Your task to perform on an android device: change your default location settings in chrome Image 0: 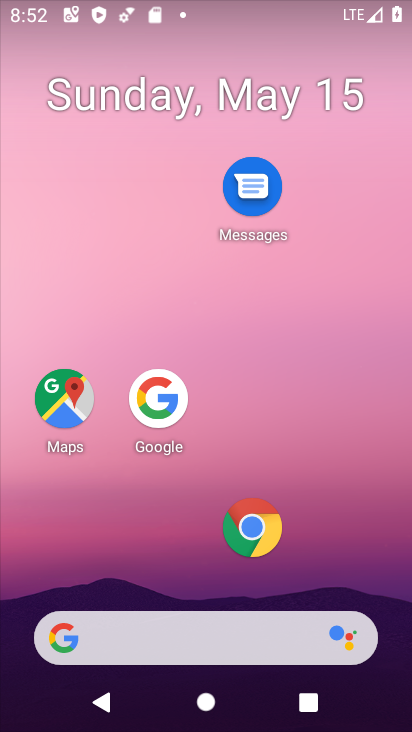
Step 0: click (245, 530)
Your task to perform on an android device: change your default location settings in chrome Image 1: 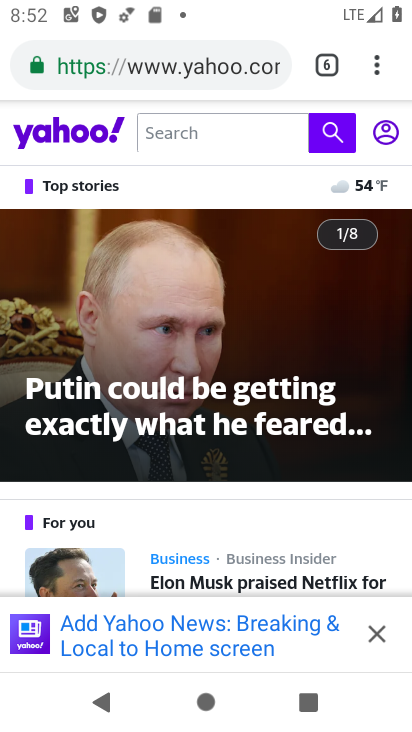
Step 1: drag from (375, 70) to (186, 584)
Your task to perform on an android device: change your default location settings in chrome Image 2: 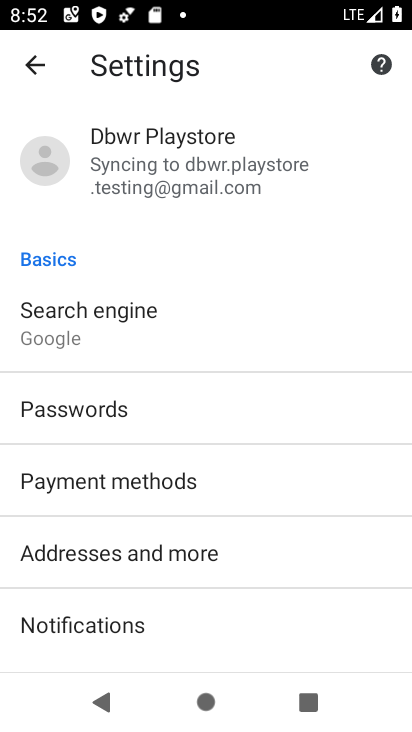
Step 2: drag from (161, 644) to (285, 223)
Your task to perform on an android device: change your default location settings in chrome Image 3: 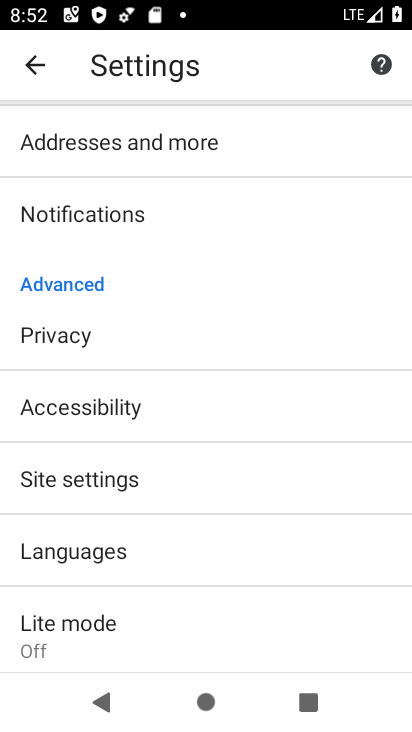
Step 3: click (139, 486)
Your task to perform on an android device: change your default location settings in chrome Image 4: 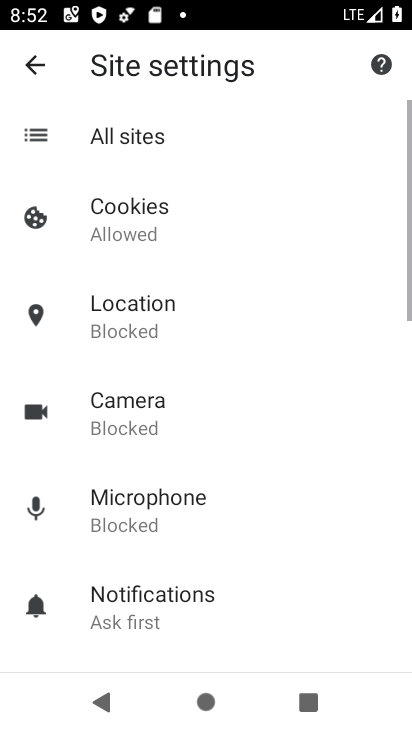
Step 4: click (125, 319)
Your task to perform on an android device: change your default location settings in chrome Image 5: 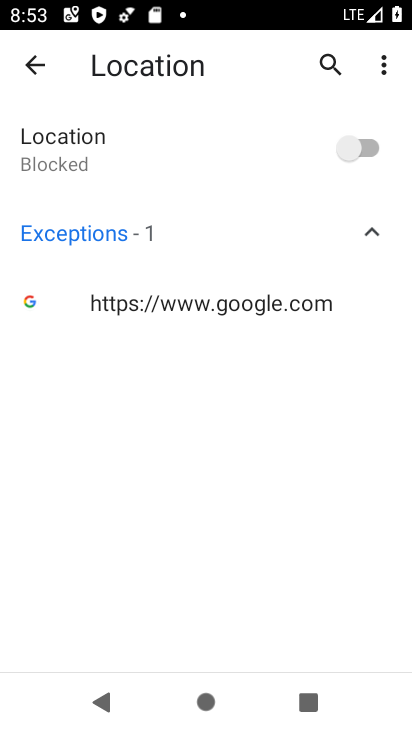
Step 5: click (366, 150)
Your task to perform on an android device: change your default location settings in chrome Image 6: 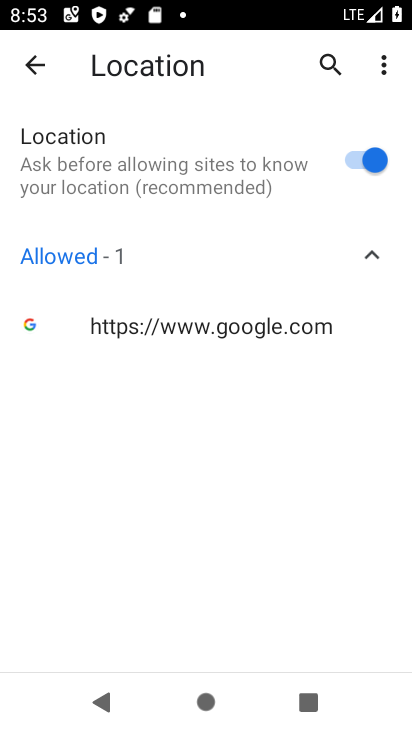
Step 6: task complete